Your task to perform on an android device: install app "Google Chat" Image 0: 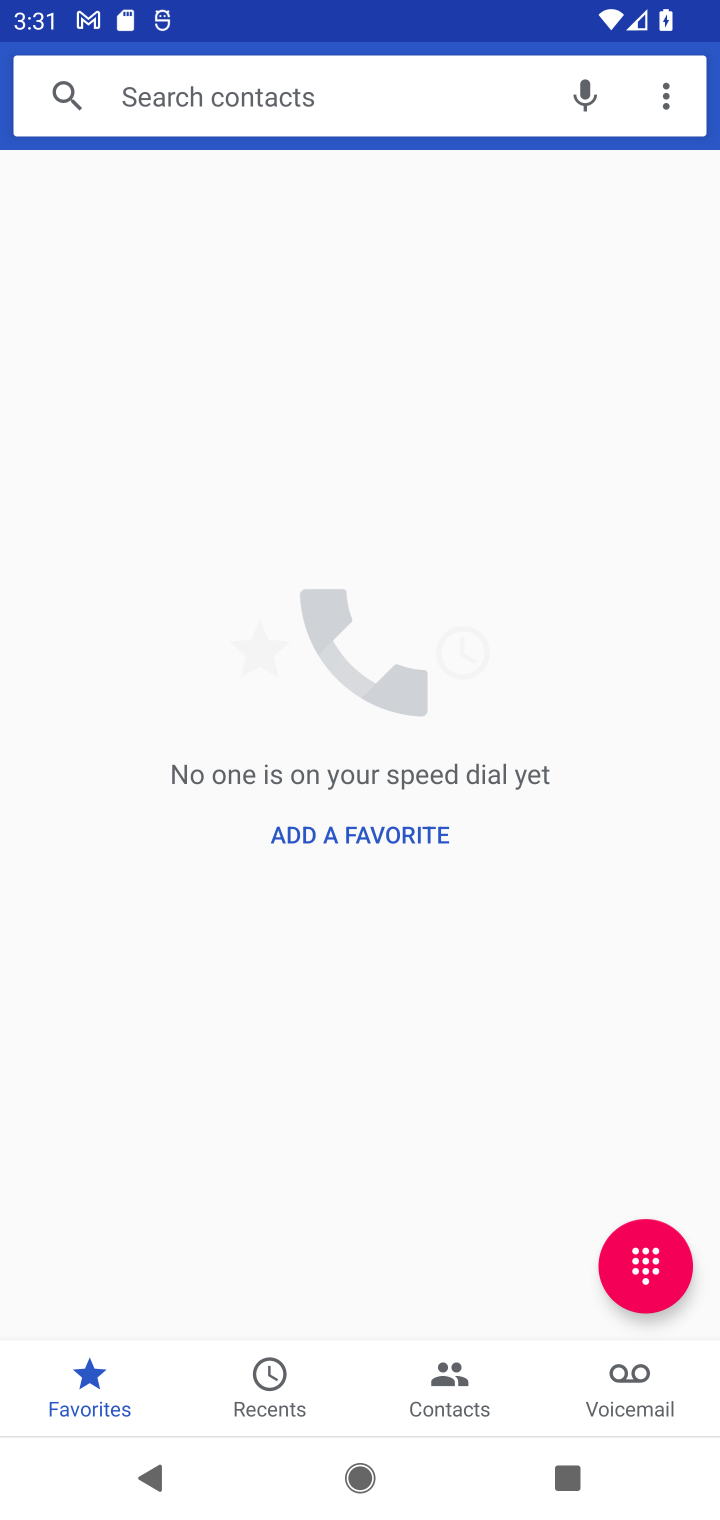
Step 0: press home button
Your task to perform on an android device: install app "Google Chat" Image 1: 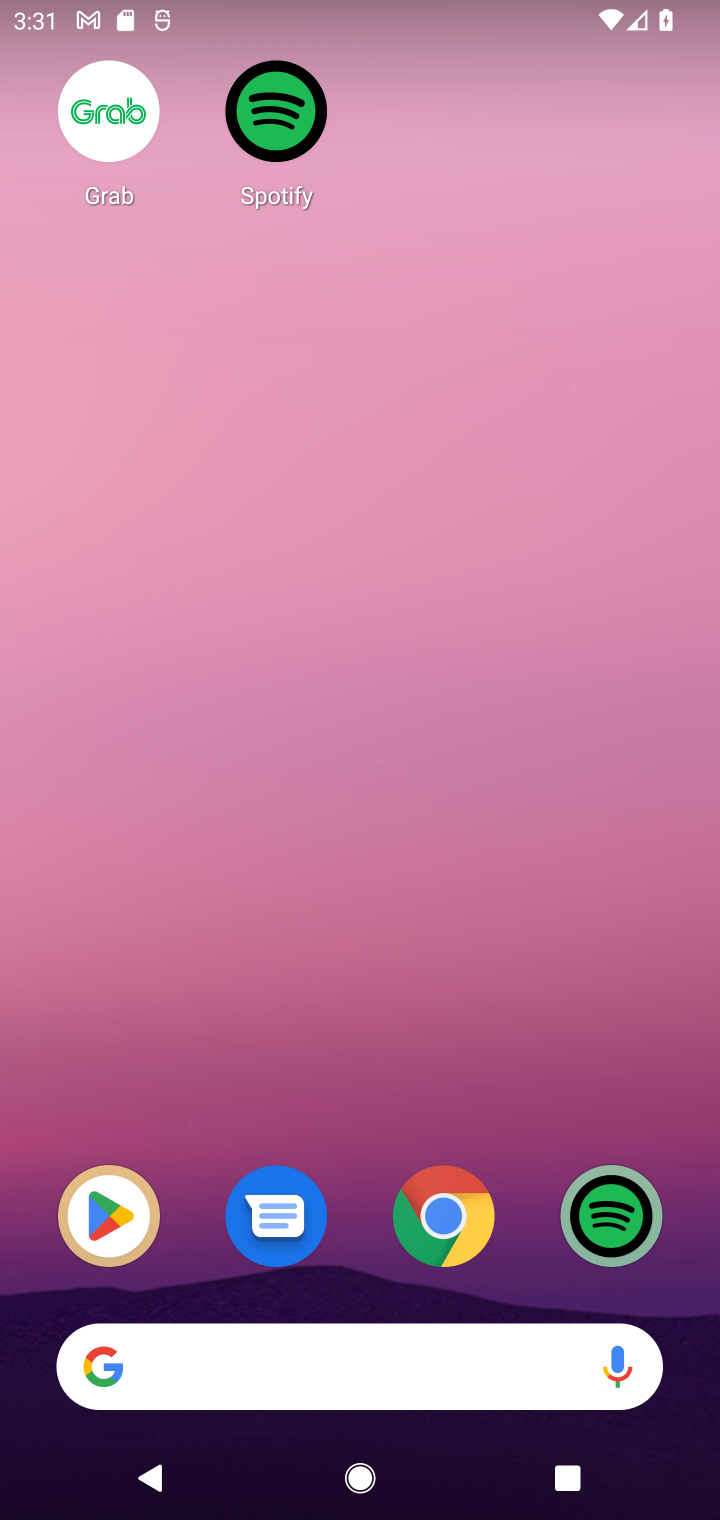
Step 1: drag from (449, 1322) to (526, 35)
Your task to perform on an android device: install app "Google Chat" Image 2: 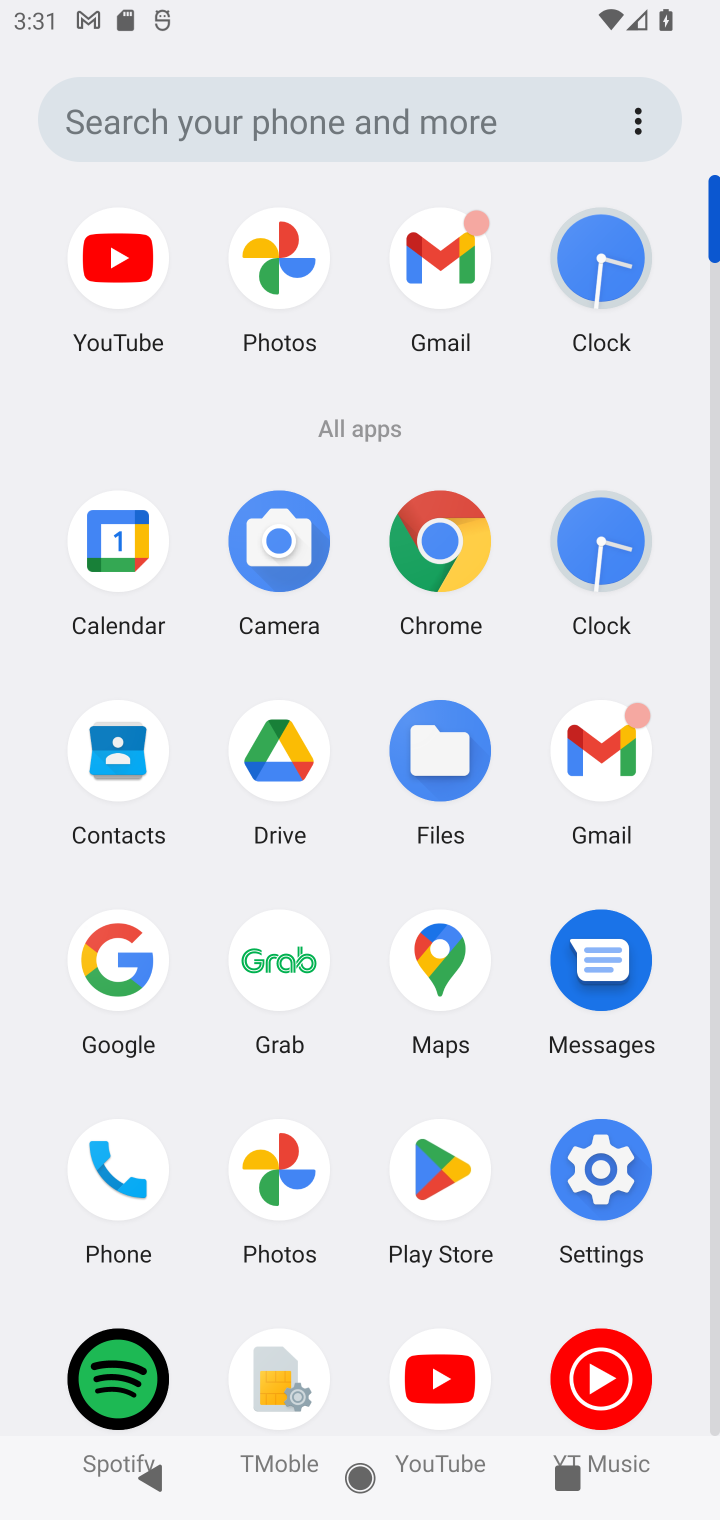
Step 2: click (445, 1189)
Your task to perform on an android device: install app "Google Chat" Image 3: 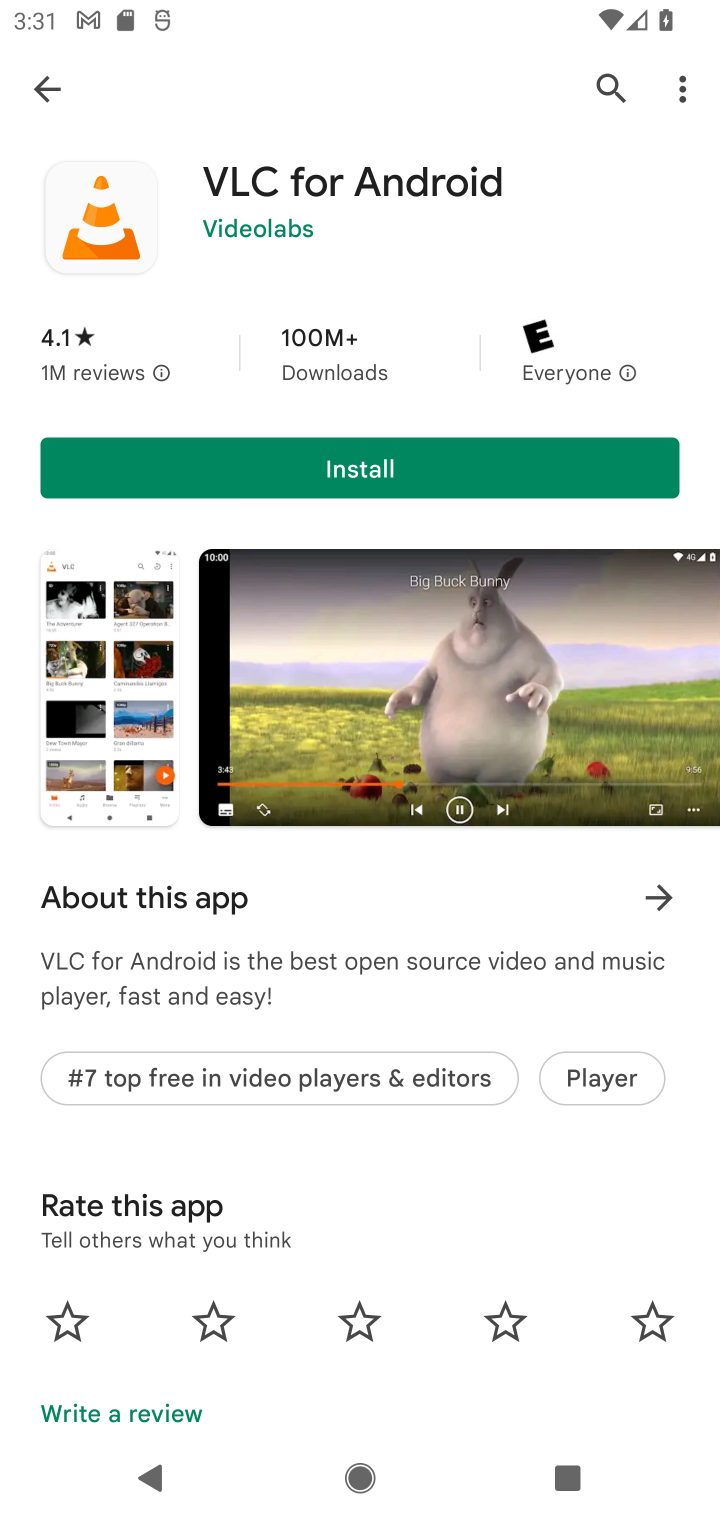
Step 3: click (604, 87)
Your task to perform on an android device: install app "Google Chat" Image 4: 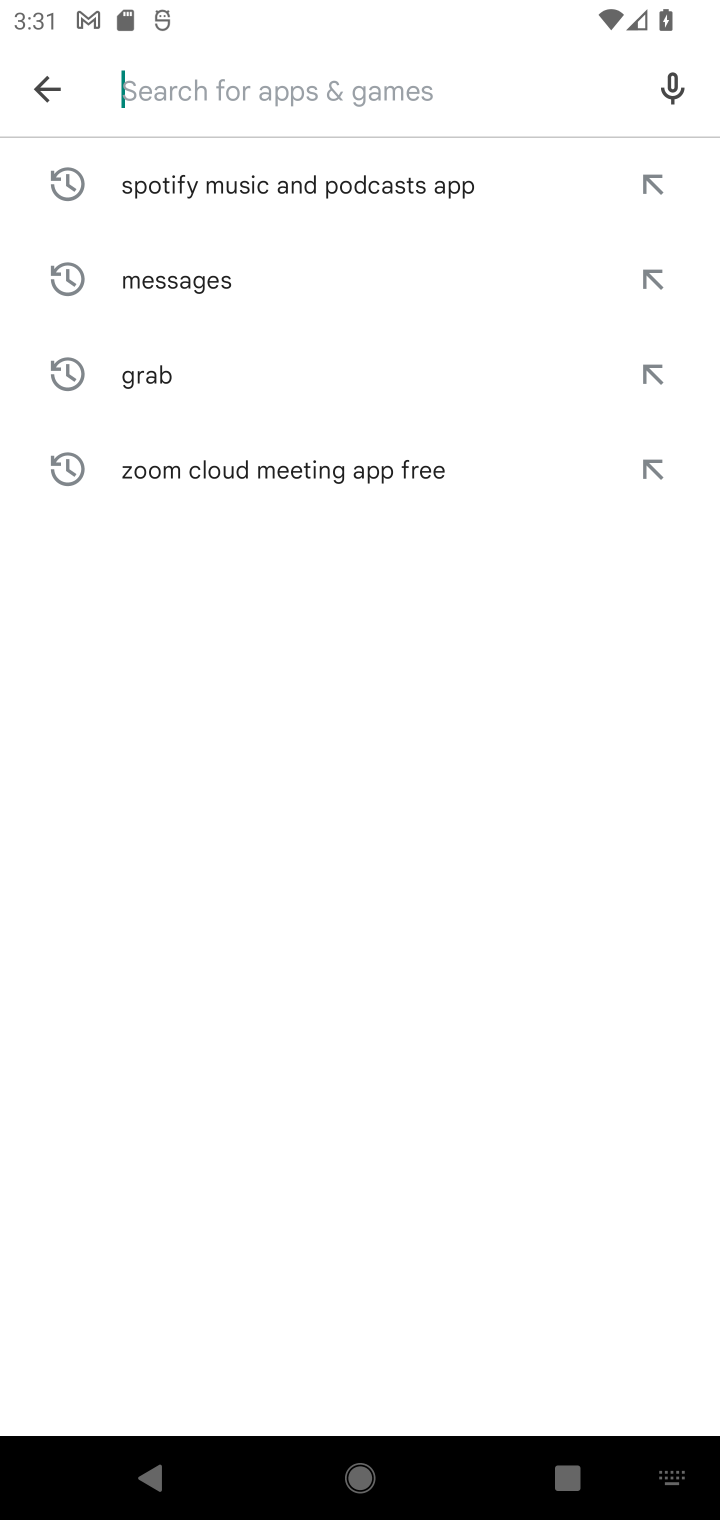
Step 4: type "google chat"
Your task to perform on an android device: install app "Google Chat" Image 5: 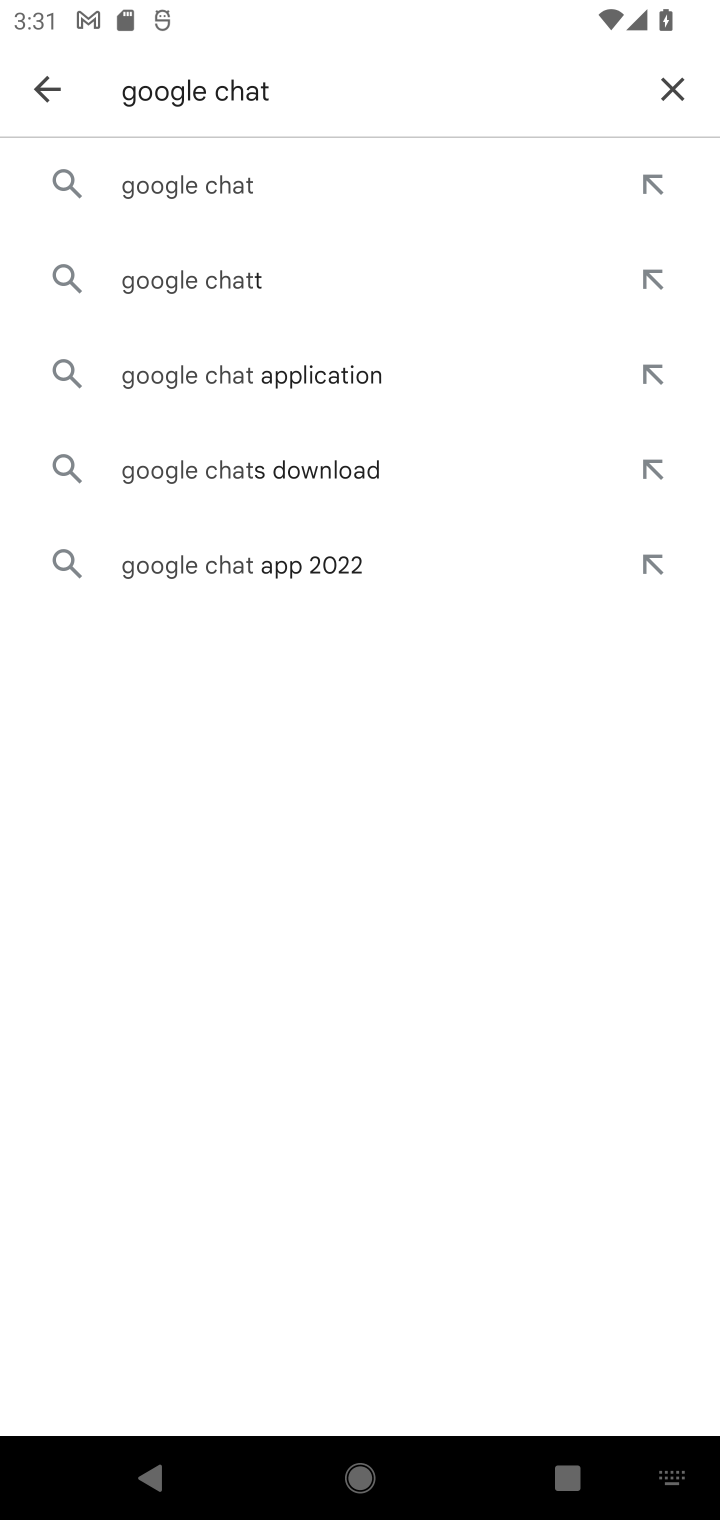
Step 5: click (208, 175)
Your task to perform on an android device: install app "Google Chat" Image 6: 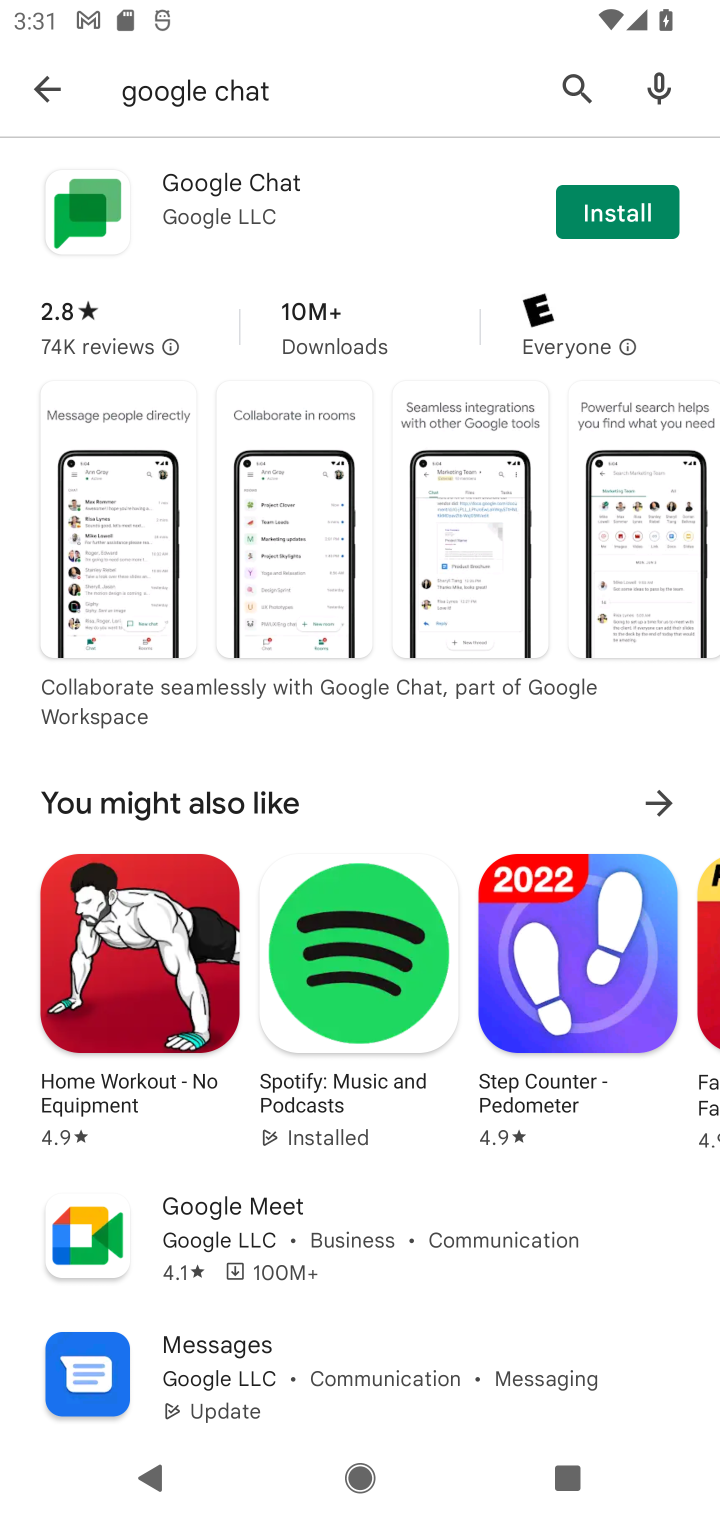
Step 6: click (640, 208)
Your task to perform on an android device: install app "Google Chat" Image 7: 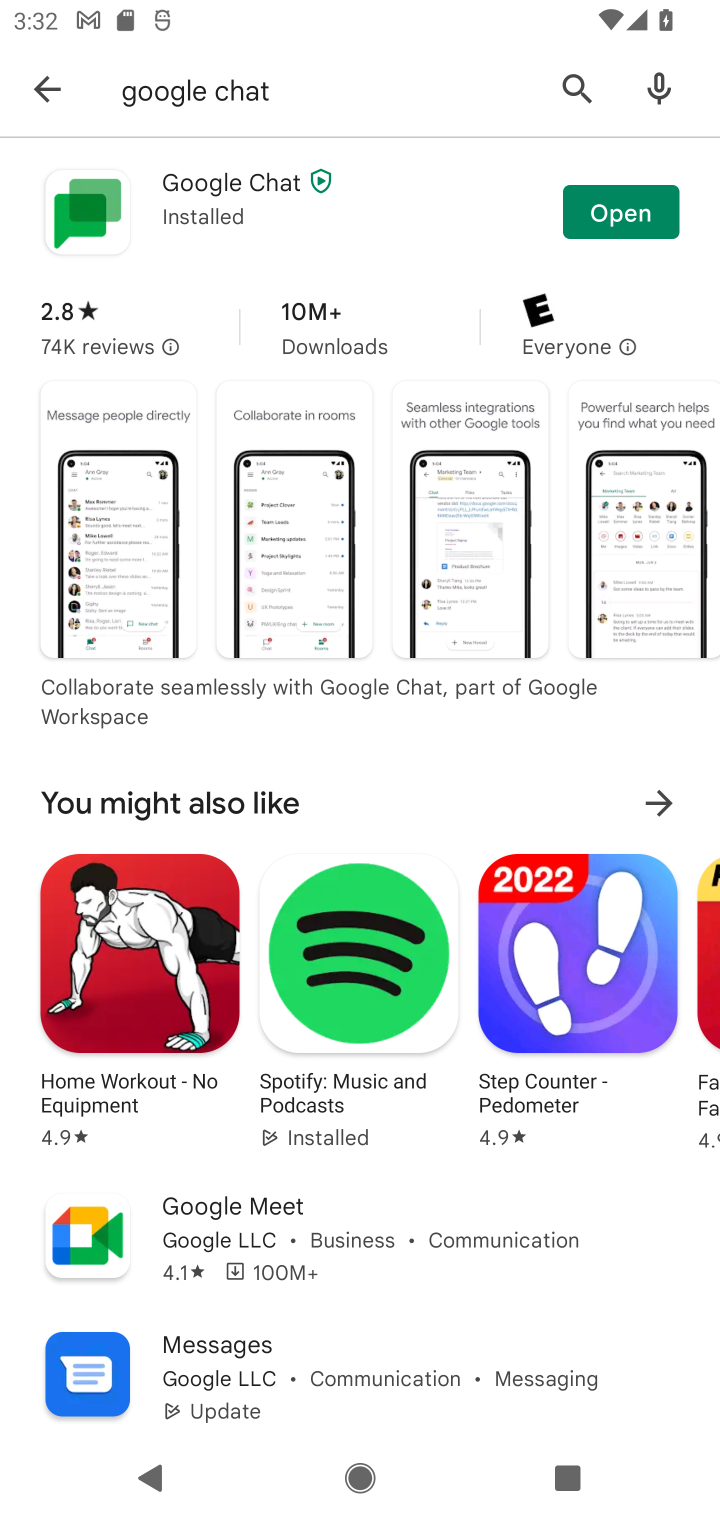
Step 7: task complete